Your task to perform on an android device: turn pop-ups off in chrome Image 0: 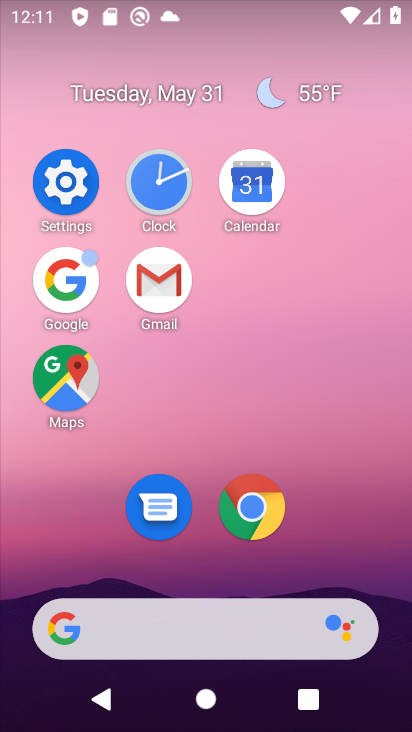
Step 0: click (253, 497)
Your task to perform on an android device: turn pop-ups off in chrome Image 1: 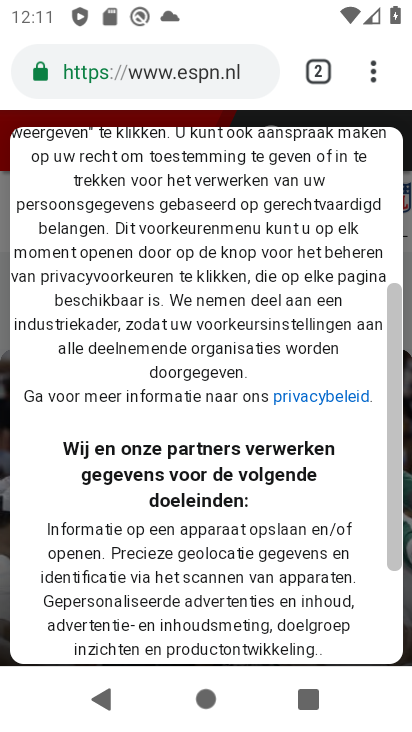
Step 1: click (377, 66)
Your task to perform on an android device: turn pop-ups off in chrome Image 2: 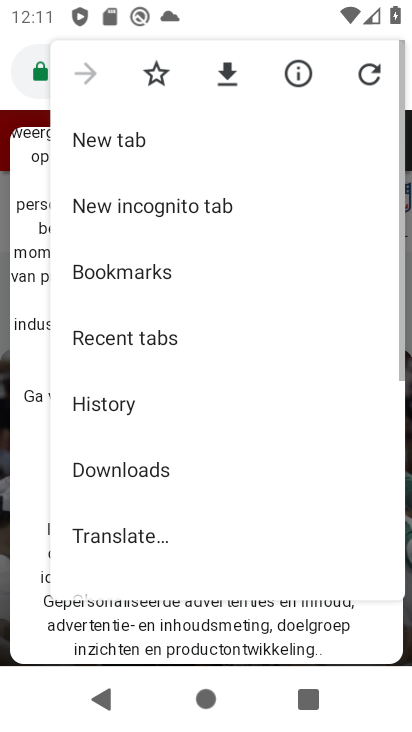
Step 2: drag from (181, 412) to (181, 69)
Your task to perform on an android device: turn pop-ups off in chrome Image 3: 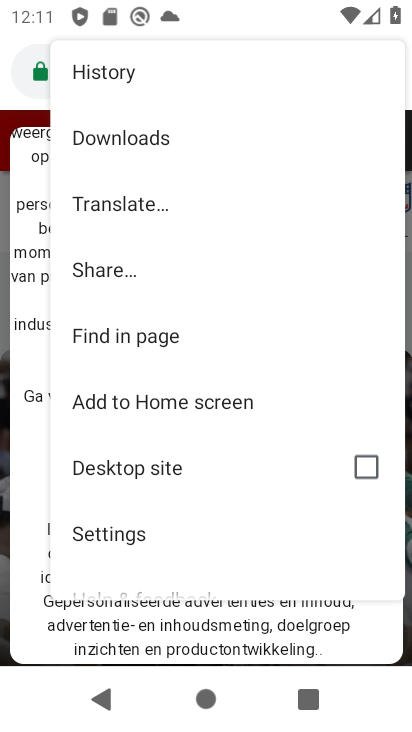
Step 3: click (173, 528)
Your task to perform on an android device: turn pop-ups off in chrome Image 4: 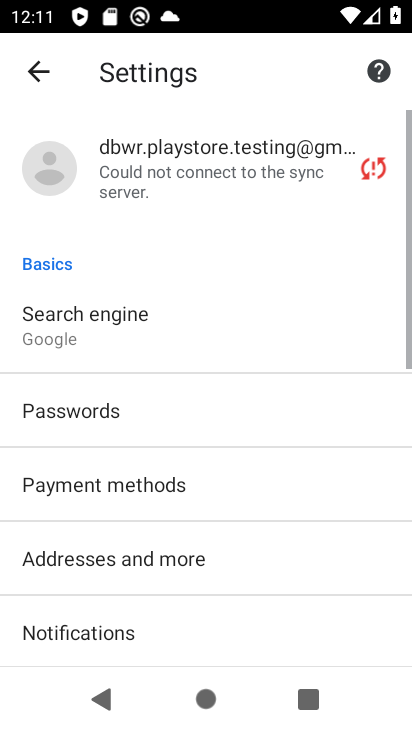
Step 4: drag from (172, 527) to (178, 295)
Your task to perform on an android device: turn pop-ups off in chrome Image 5: 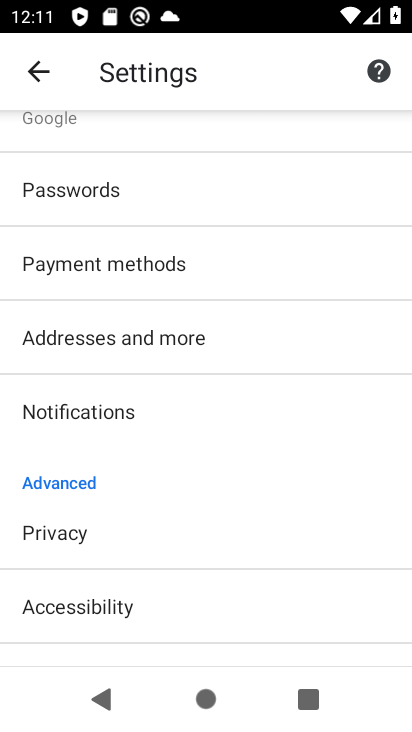
Step 5: drag from (190, 551) to (194, 161)
Your task to perform on an android device: turn pop-ups off in chrome Image 6: 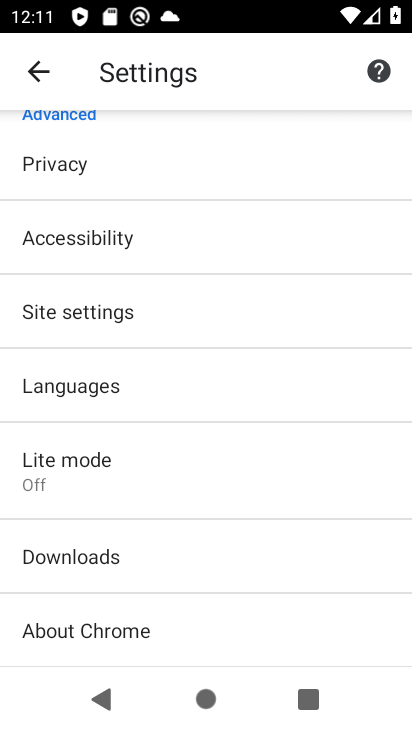
Step 6: click (168, 294)
Your task to perform on an android device: turn pop-ups off in chrome Image 7: 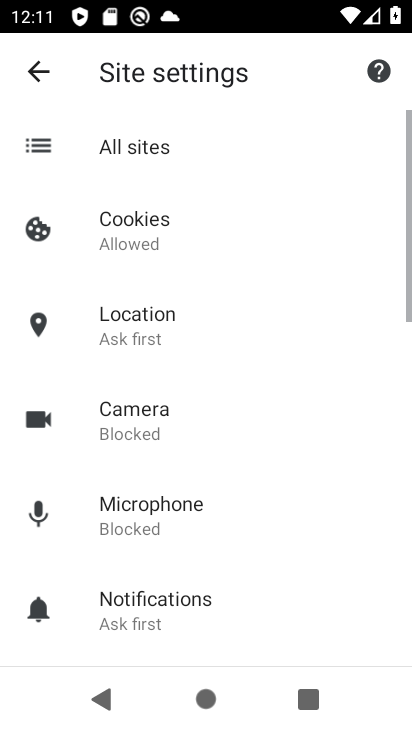
Step 7: drag from (215, 569) to (204, 174)
Your task to perform on an android device: turn pop-ups off in chrome Image 8: 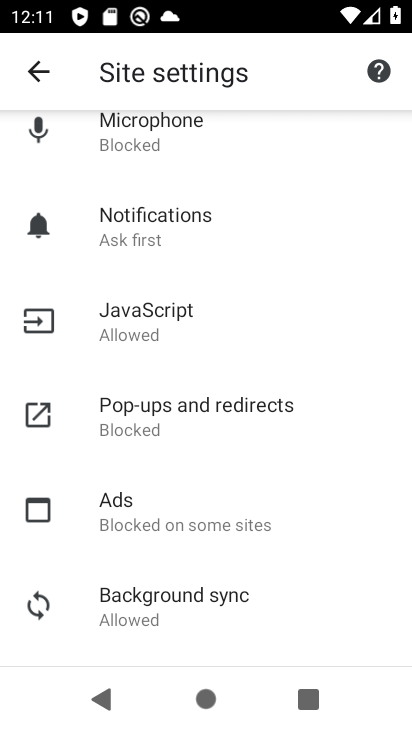
Step 8: click (181, 434)
Your task to perform on an android device: turn pop-ups off in chrome Image 9: 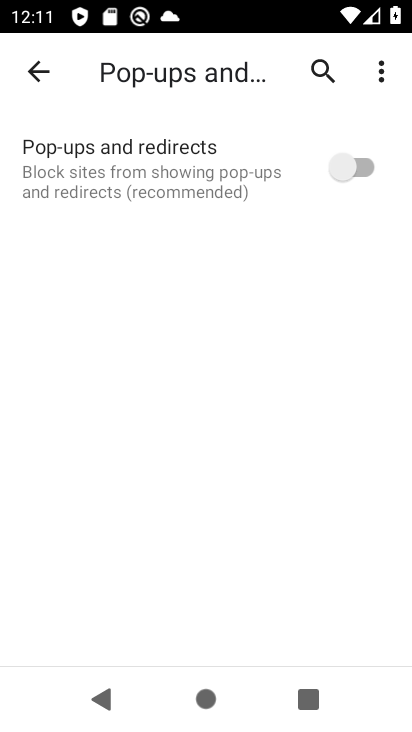
Step 9: task complete